Your task to perform on an android device: Open the calendar and show me this week's events? Image 0: 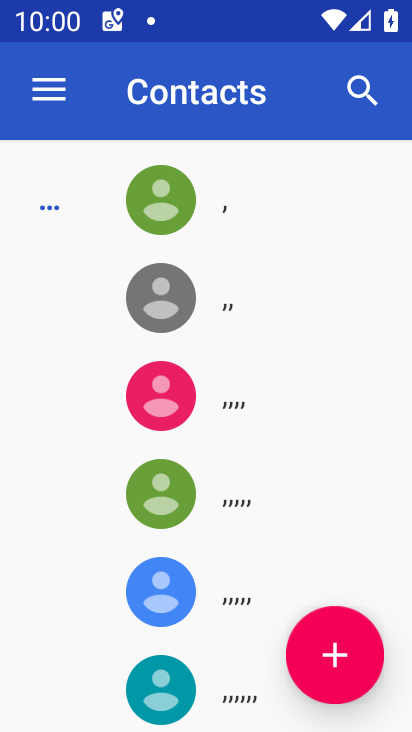
Step 0: press home button
Your task to perform on an android device: Open the calendar and show me this week's events? Image 1: 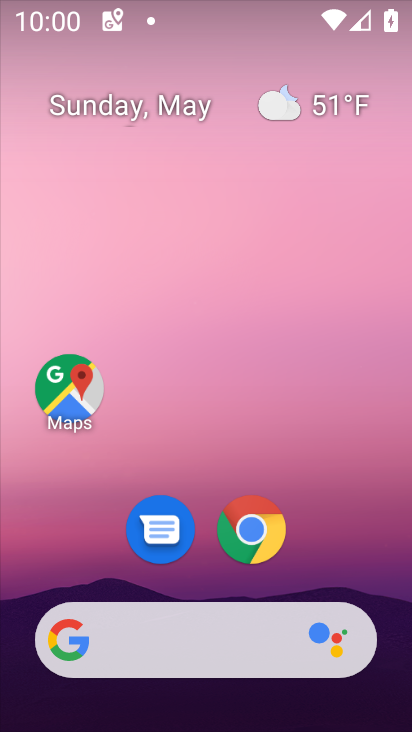
Step 1: drag from (181, 704) to (147, 115)
Your task to perform on an android device: Open the calendar and show me this week's events? Image 2: 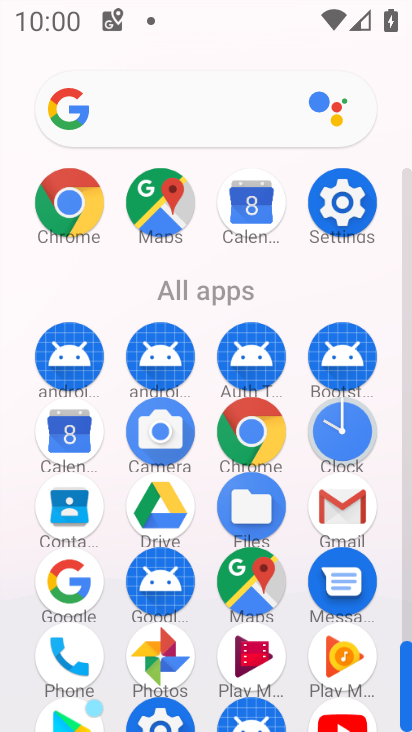
Step 2: click (61, 438)
Your task to perform on an android device: Open the calendar and show me this week's events? Image 3: 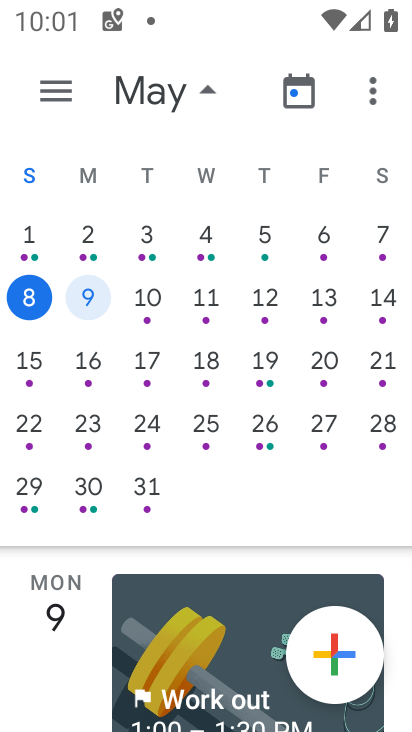
Step 3: click (79, 295)
Your task to perform on an android device: Open the calendar and show me this week's events? Image 4: 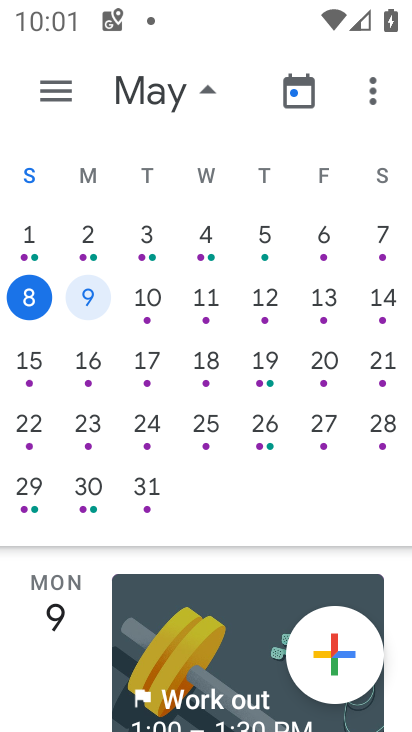
Step 4: click (66, 90)
Your task to perform on an android device: Open the calendar and show me this week's events? Image 5: 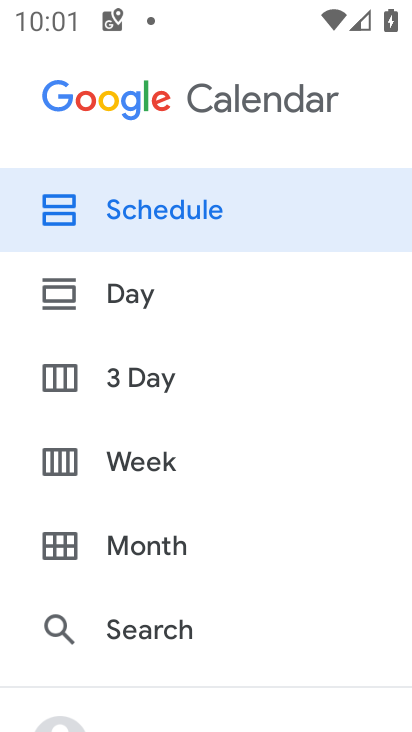
Step 5: click (144, 463)
Your task to perform on an android device: Open the calendar and show me this week's events? Image 6: 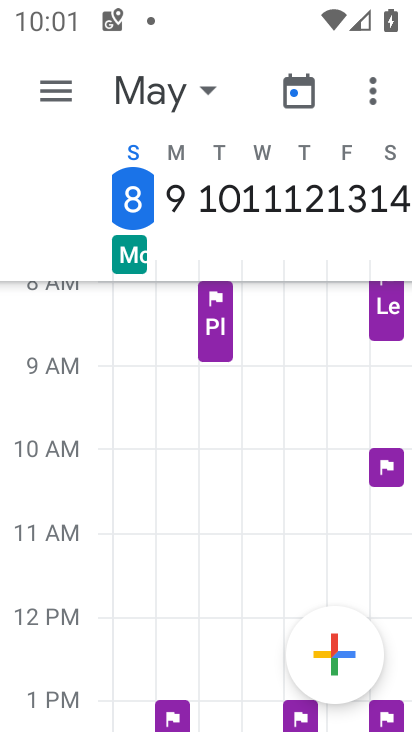
Step 6: task complete